Your task to perform on an android device: turn off notifications in google photos Image 0: 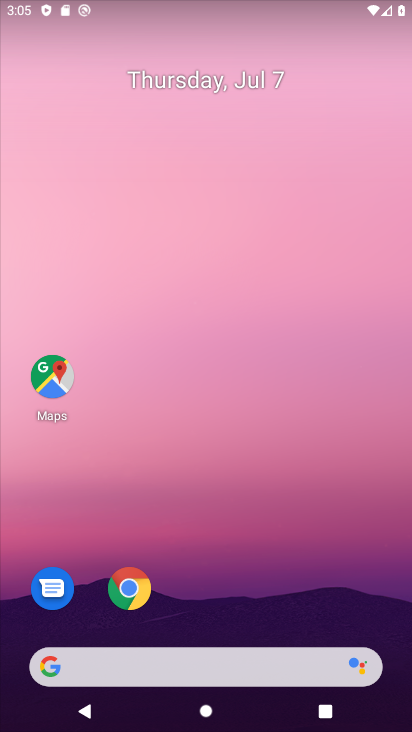
Step 0: click (132, 67)
Your task to perform on an android device: turn off notifications in google photos Image 1: 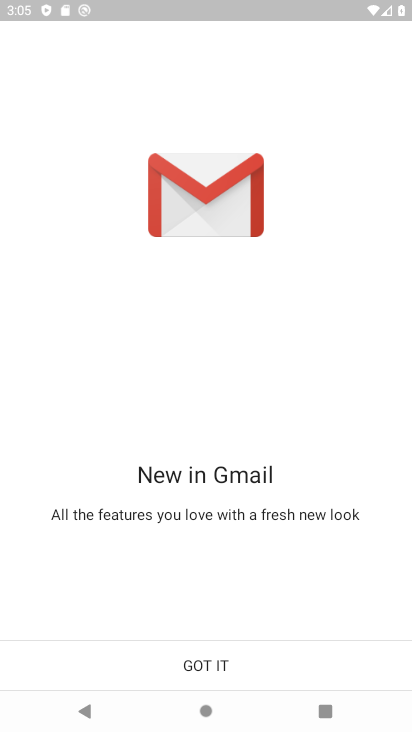
Step 1: press back button
Your task to perform on an android device: turn off notifications in google photos Image 2: 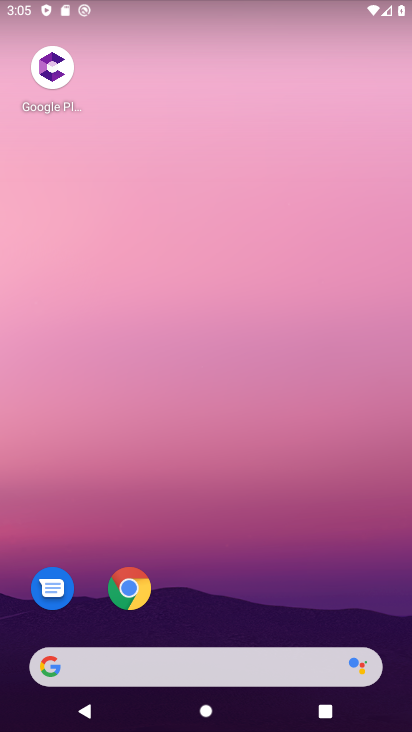
Step 2: drag from (264, 684) to (230, 289)
Your task to perform on an android device: turn off notifications in google photos Image 3: 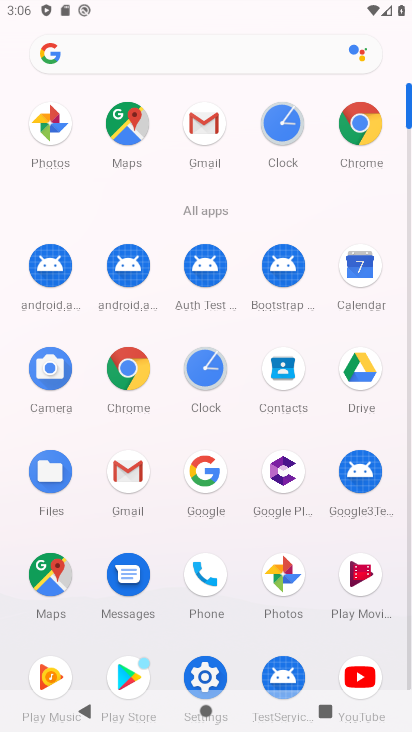
Step 3: click (281, 580)
Your task to perform on an android device: turn off notifications in google photos Image 4: 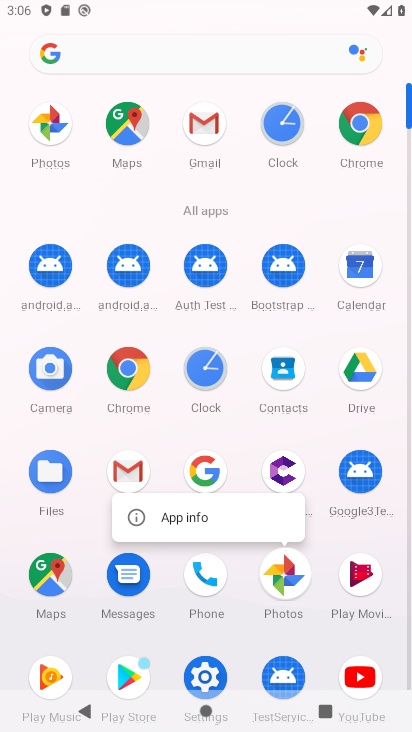
Step 4: click (286, 580)
Your task to perform on an android device: turn off notifications in google photos Image 5: 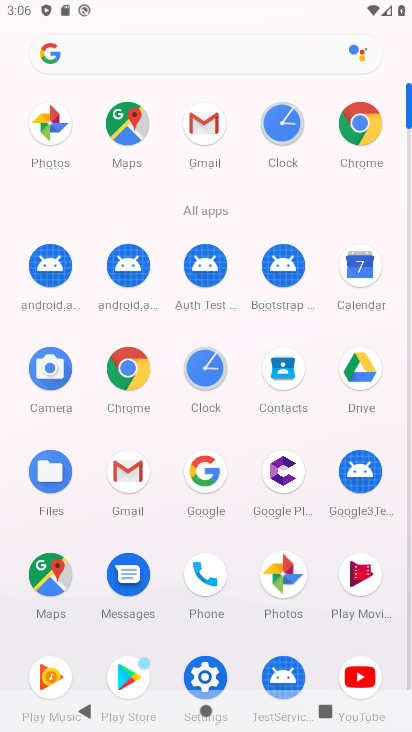
Step 5: click (286, 580)
Your task to perform on an android device: turn off notifications in google photos Image 6: 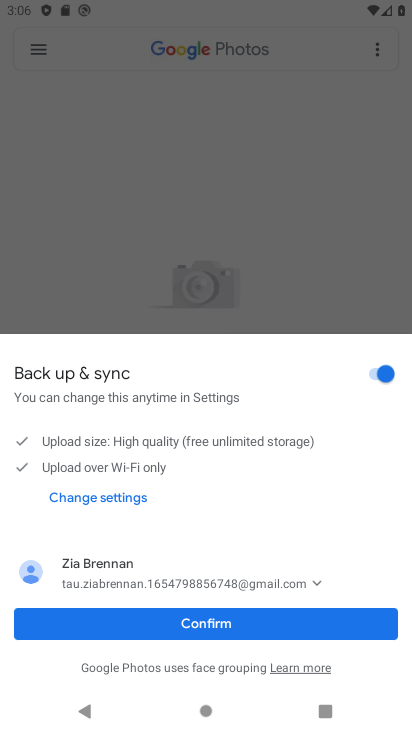
Step 6: click (221, 218)
Your task to perform on an android device: turn off notifications in google photos Image 7: 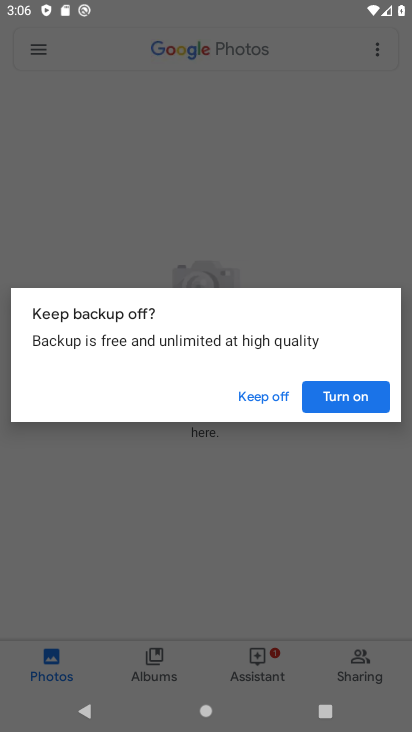
Step 7: click (212, 195)
Your task to perform on an android device: turn off notifications in google photos Image 8: 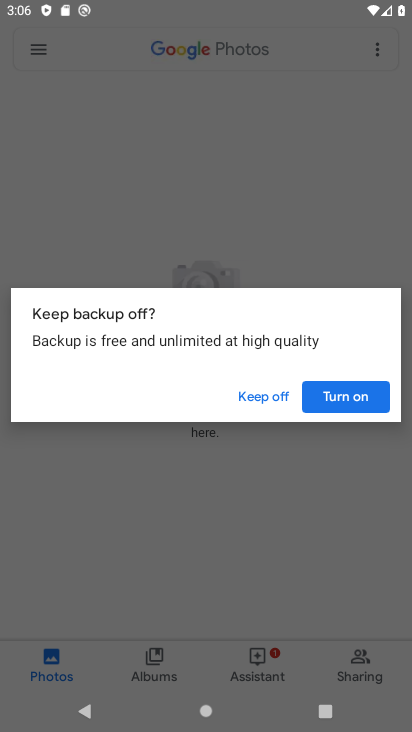
Step 8: click (293, 384)
Your task to perform on an android device: turn off notifications in google photos Image 9: 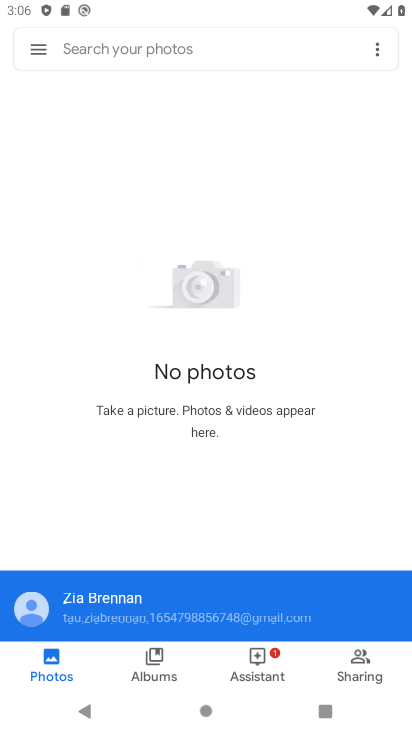
Step 9: click (58, 657)
Your task to perform on an android device: turn off notifications in google photos Image 10: 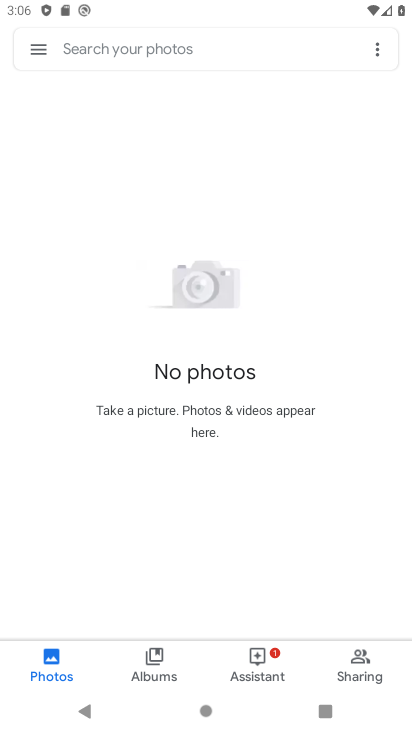
Step 10: click (32, 49)
Your task to perform on an android device: turn off notifications in google photos Image 11: 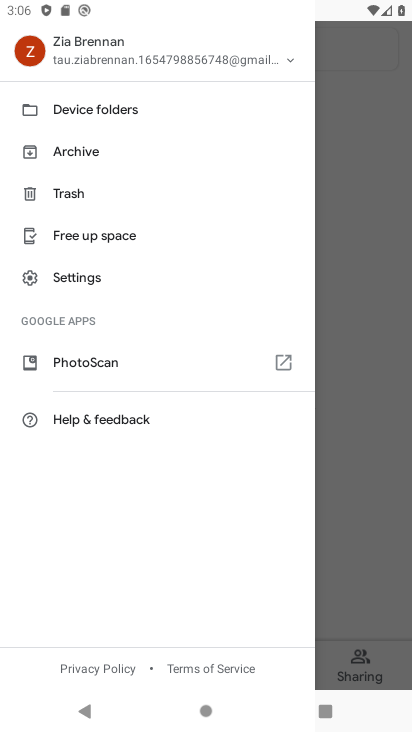
Step 11: click (70, 273)
Your task to perform on an android device: turn off notifications in google photos Image 12: 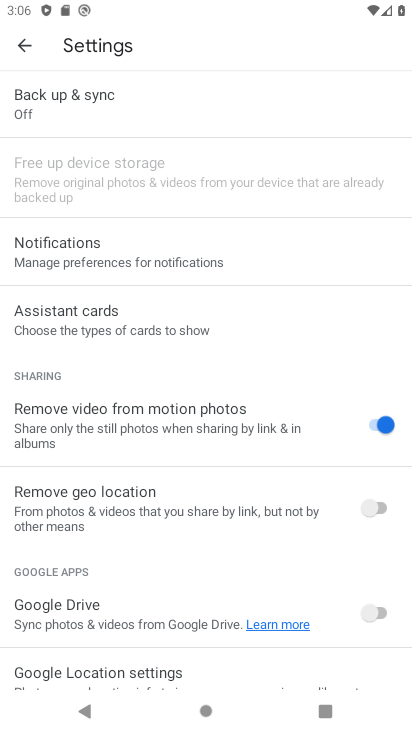
Step 12: click (56, 260)
Your task to perform on an android device: turn off notifications in google photos Image 13: 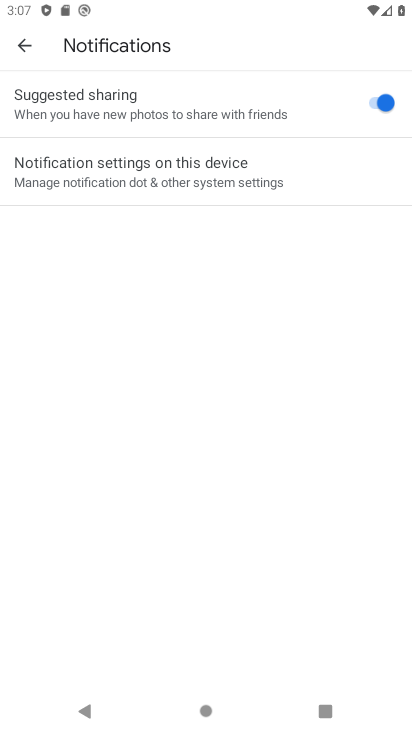
Step 13: click (19, 48)
Your task to perform on an android device: turn off notifications in google photos Image 14: 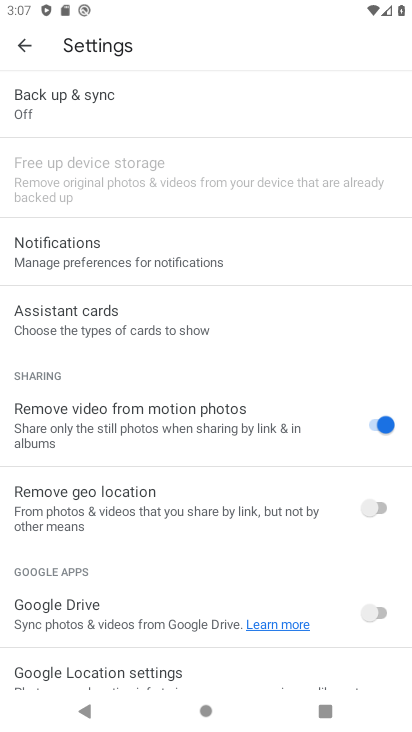
Step 14: task complete